Your task to perform on an android device: install app "Google Docs" Image 0: 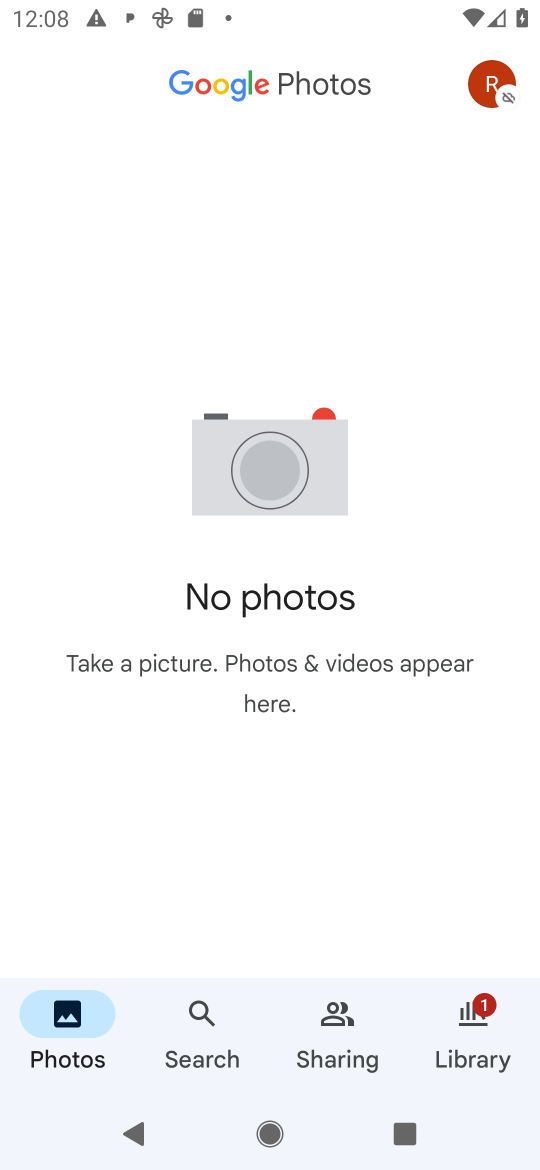
Step 0: press home button
Your task to perform on an android device: install app "Google Docs" Image 1: 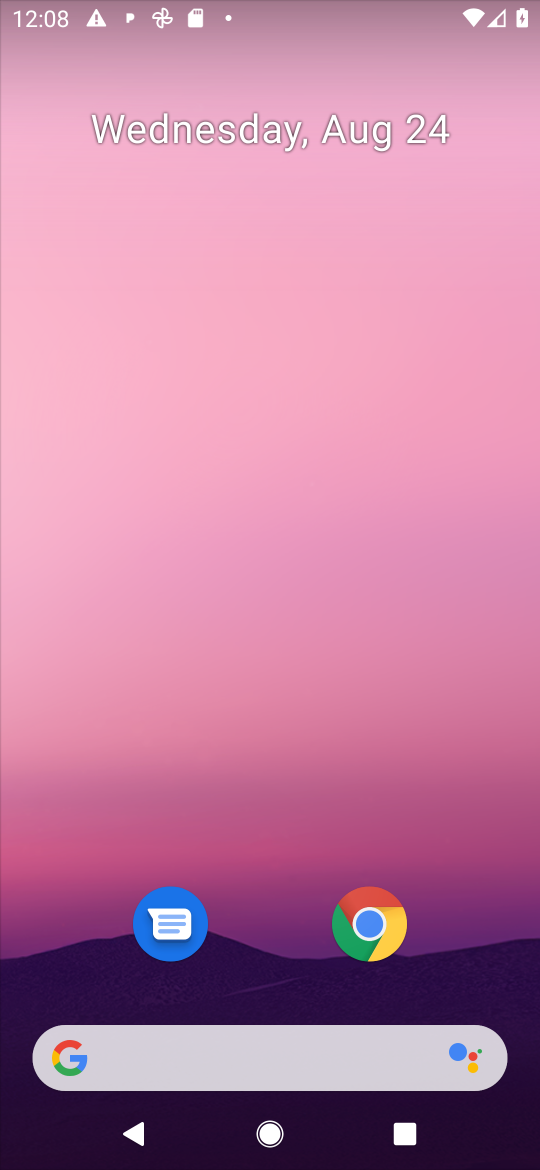
Step 1: drag from (473, 966) to (500, 186)
Your task to perform on an android device: install app "Google Docs" Image 2: 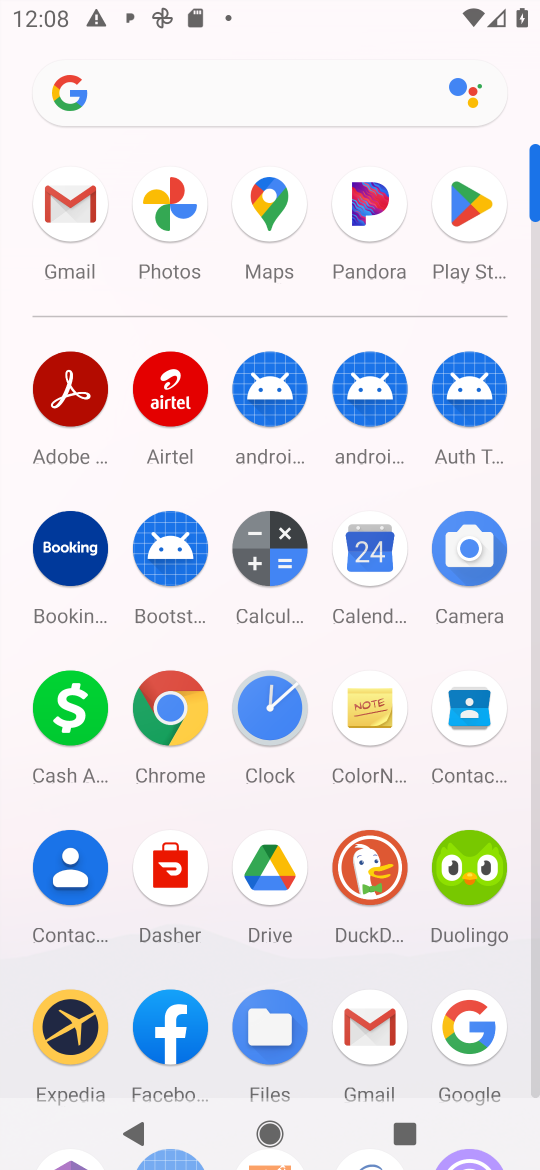
Step 2: click (464, 201)
Your task to perform on an android device: install app "Google Docs" Image 3: 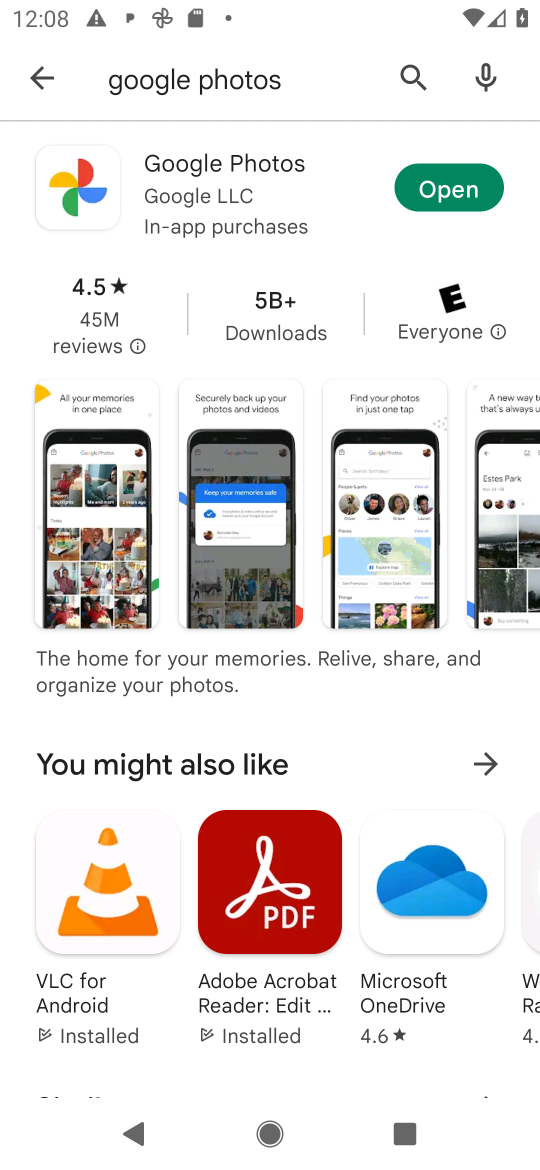
Step 3: press back button
Your task to perform on an android device: install app "Google Docs" Image 4: 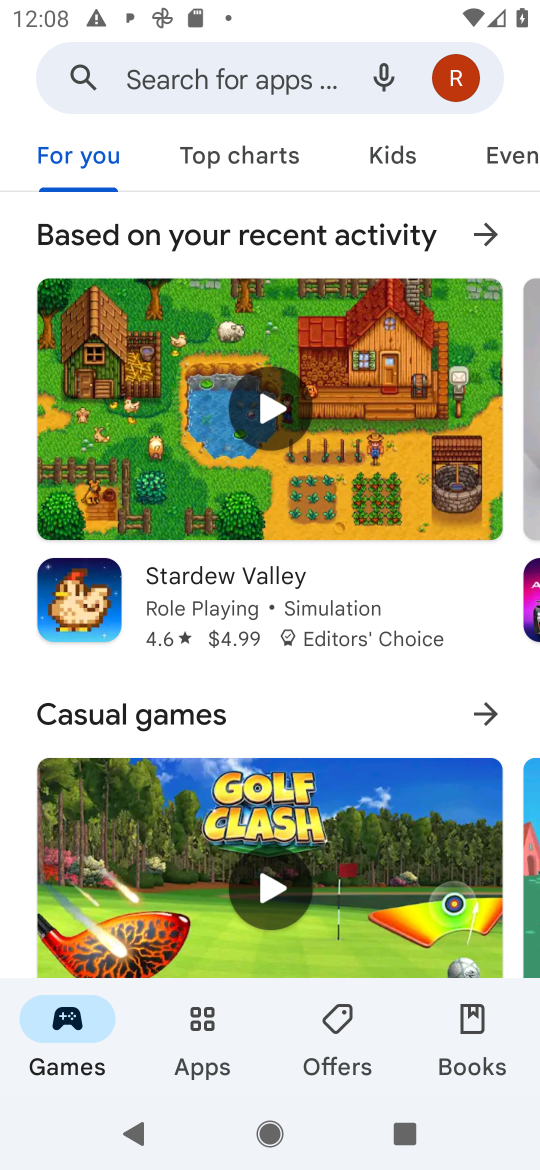
Step 4: click (249, 64)
Your task to perform on an android device: install app "Google Docs" Image 5: 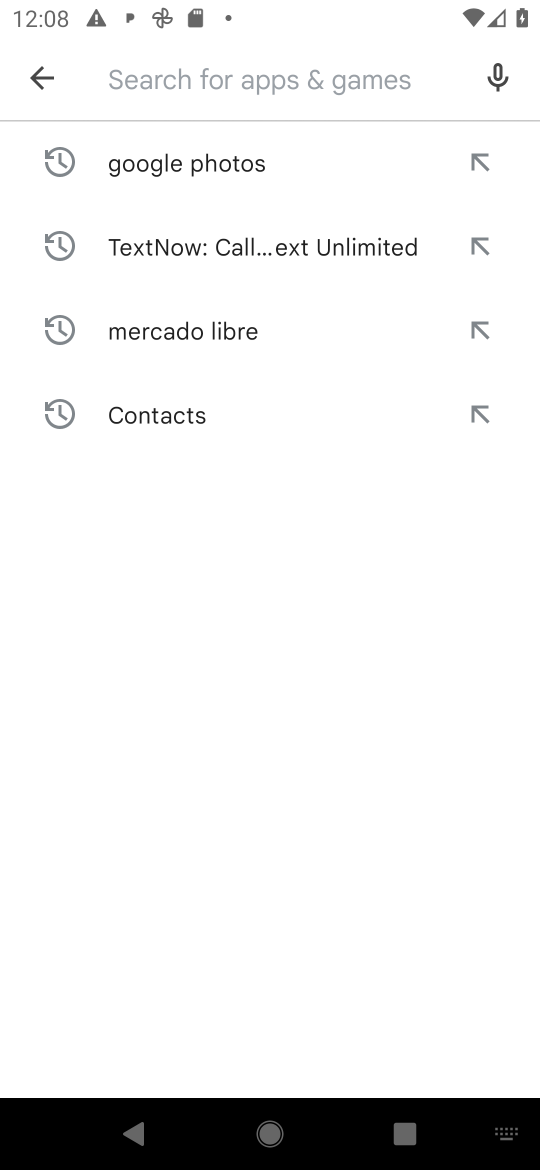
Step 5: type "google docs"
Your task to perform on an android device: install app "Google Docs" Image 6: 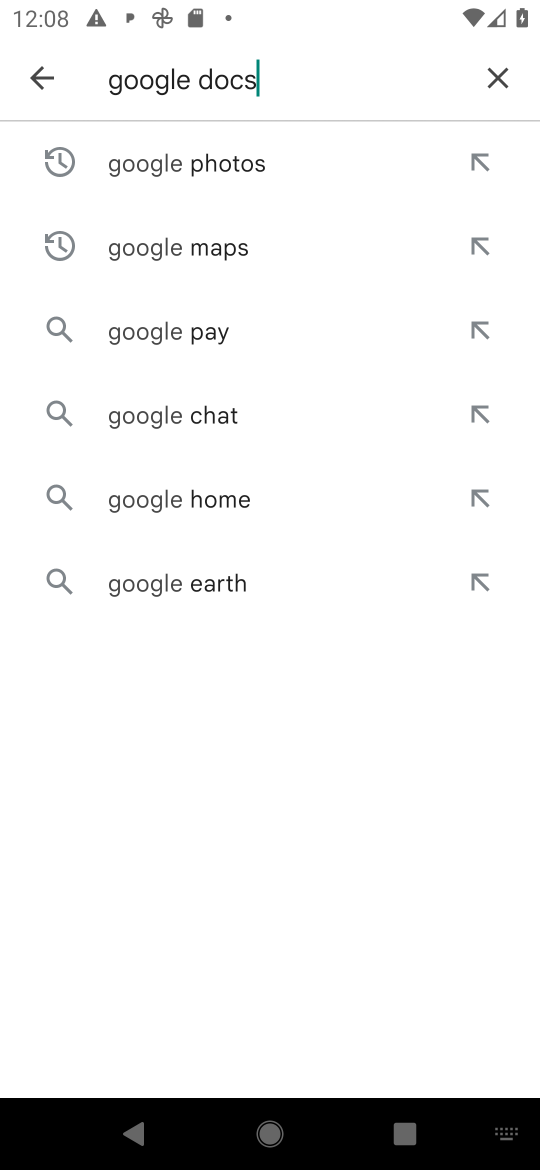
Step 6: press enter
Your task to perform on an android device: install app "Google Docs" Image 7: 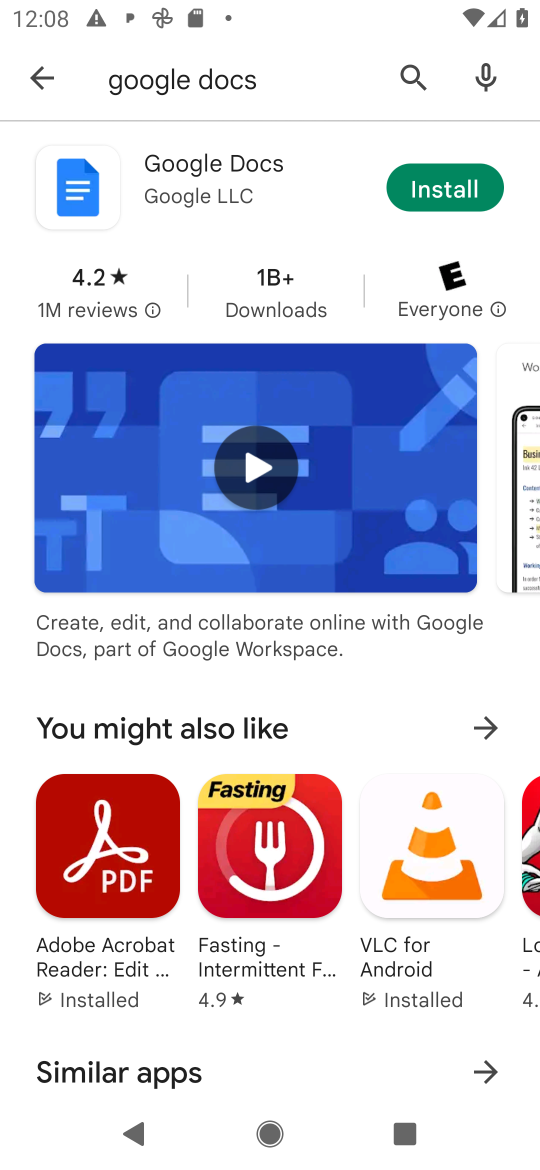
Step 7: click (469, 188)
Your task to perform on an android device: install app "Google Docs" Image 8: 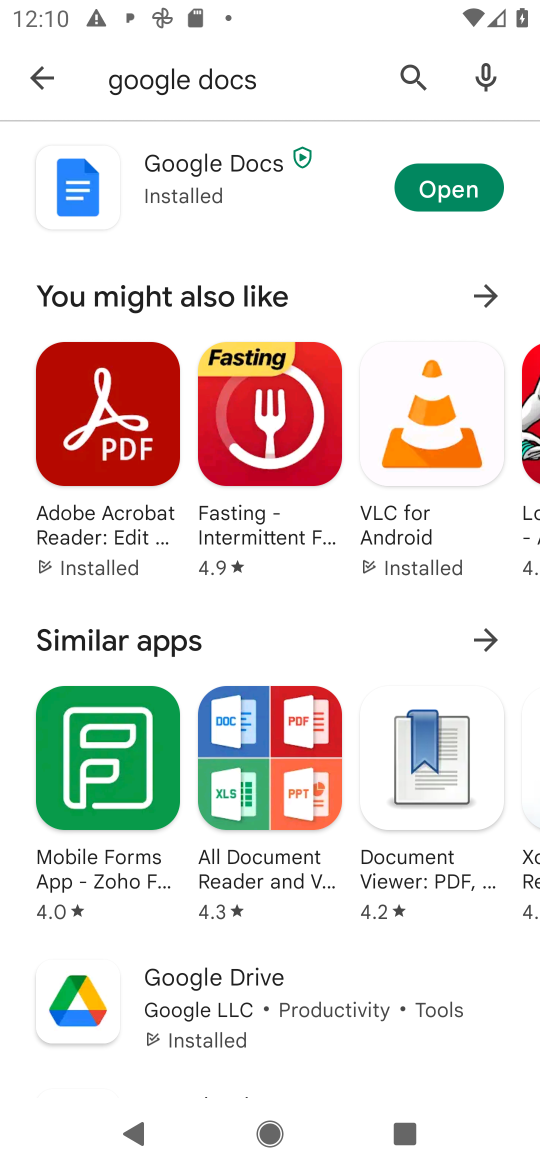
Step 8: task complete